Your task to perform on an android device: Open my contact list Image 0: 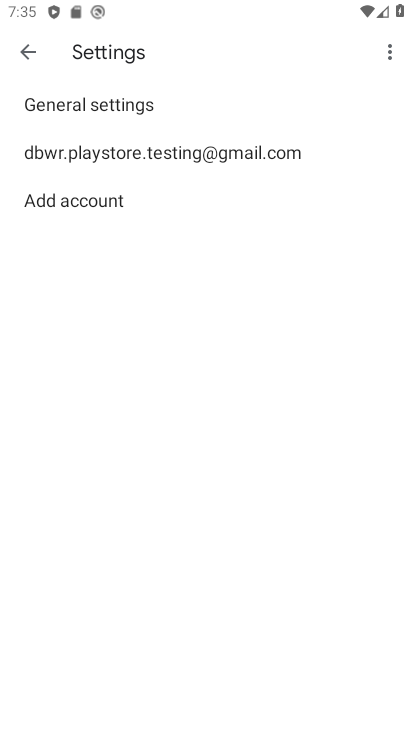
Step 0: press home button
Your task to perform on an android device: Open my contact list Image 1: 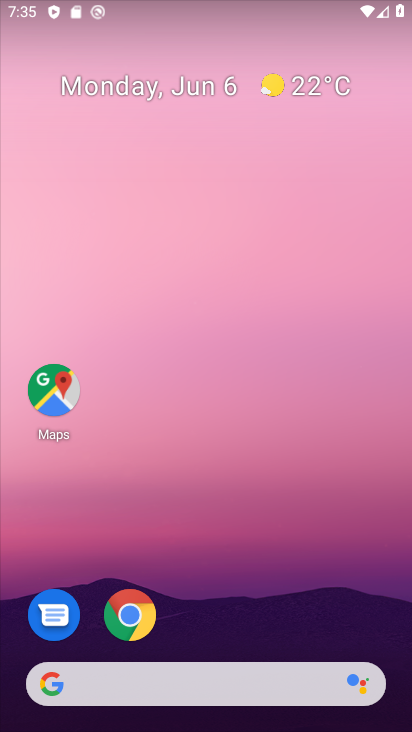
Step 1: drag from (388, 607) to (388, 93)
Your task to perform on an android device: Open my contact list Image 2: 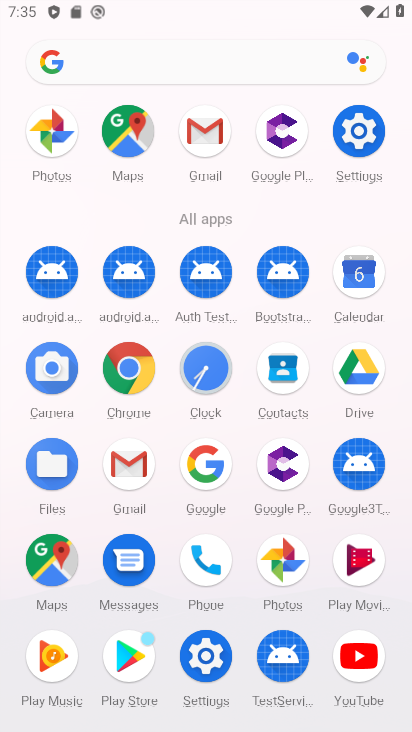
Step 2: click (268, 380)
Your task to perform on an android device: Open my contact list Image 3: 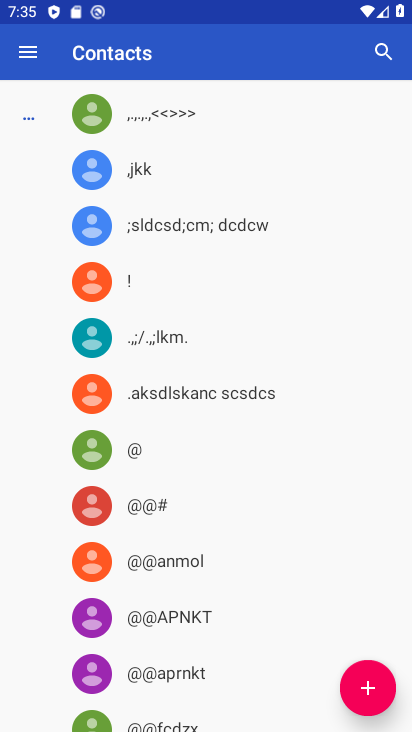
Step 3: task complete